Your task to perform on an android device: Open Google Chrome and open the bookmarks view Image 0: 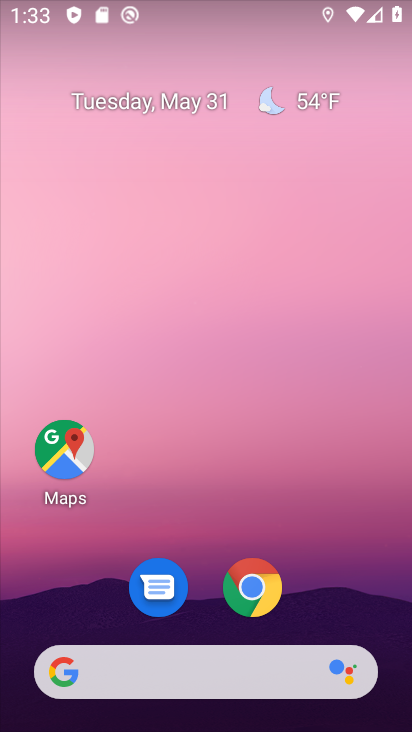
Step 0: click (216, 112)
Your task to perform on an android device: Open Google Chrome and open the bookmarks view Image 1: 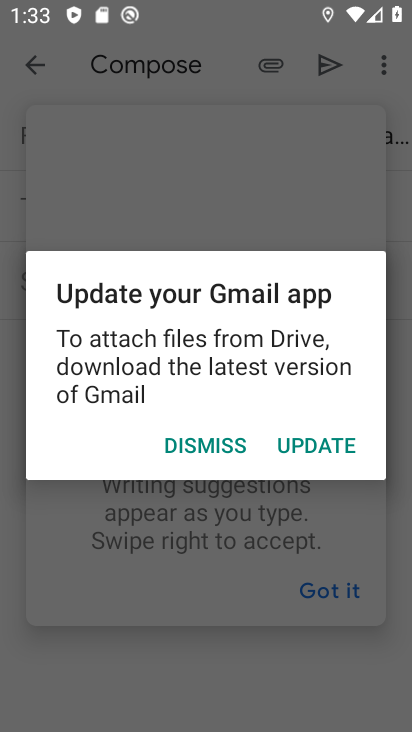
Step 1: press home button
Your task to perform on an android device: Open Google Chrome and open the bookmarks view Image 2: 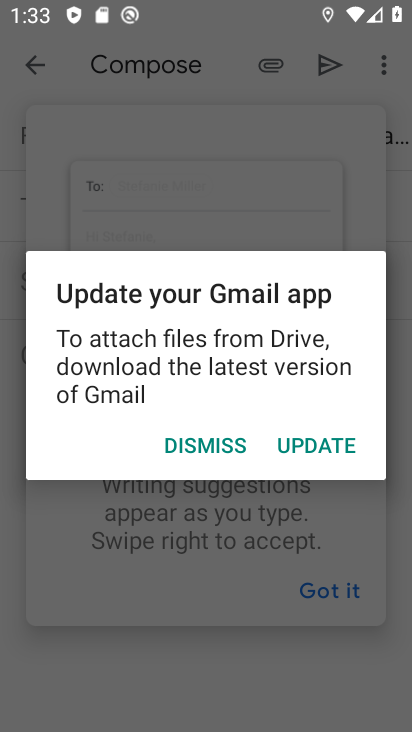
Step 2: press home button
Your task to perform on an android device: Open Google Chrome and open the bookmarks view Image 3: 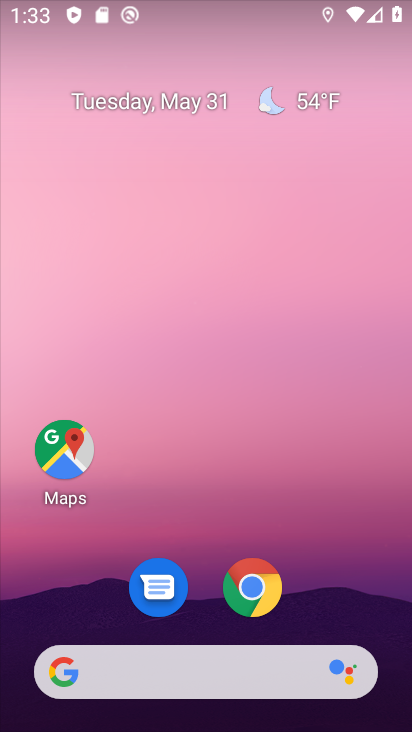
Step 3: drag from (217, 599) to (249, 98)
Your task to perform on an android device: Open Google Chrome and open the bookmarks view Image 4: 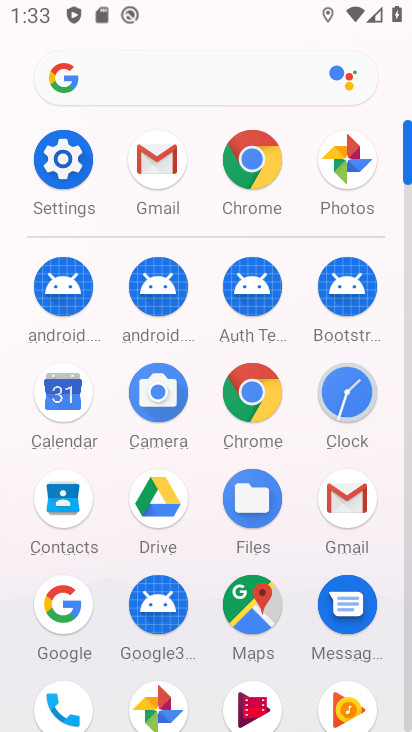
Step 4: click (256, 157)
Your task to perform on an android device: Open Google Chrome and open the bookmarks view Image 5: 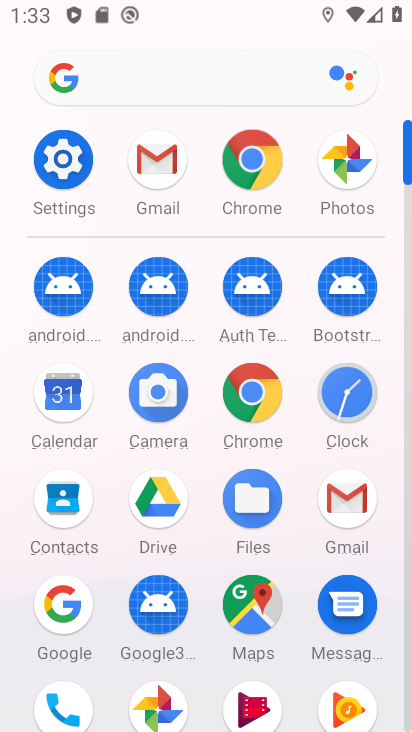
Step 5: click (256, 157)
Your task to perform on an android device: Open Google Chrome and open the bookmarks view Image 6: 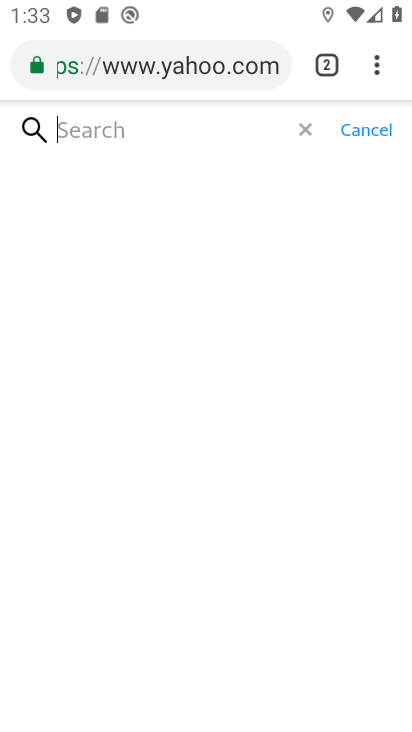
Step 6: task complete